Your task to perform on an android device: Show the shopping cart on costco. Add logitech g933 to the cart on costco, then select checkout. Image 0: 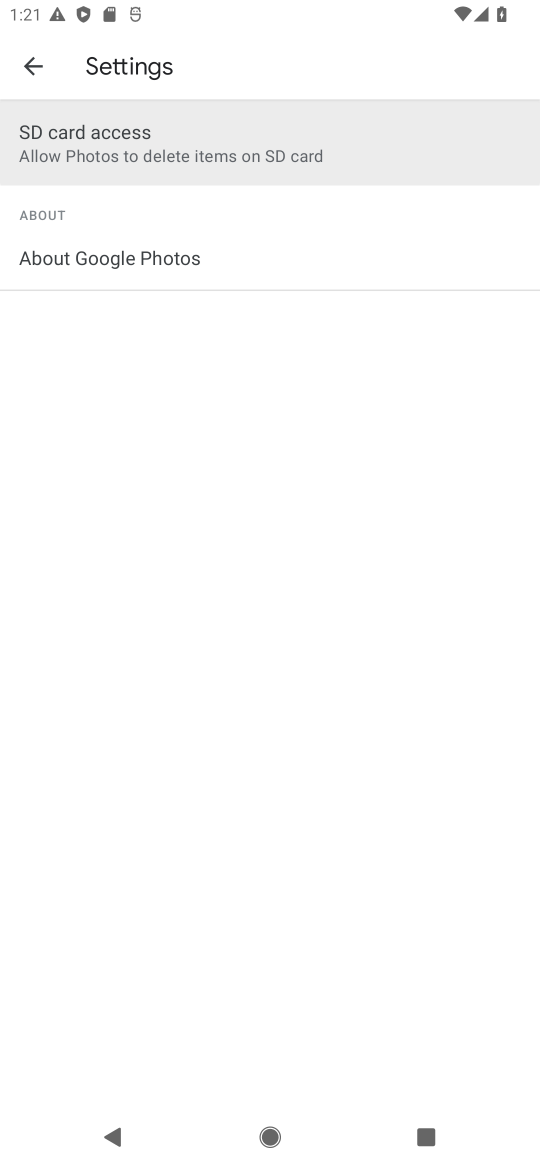
Step 0: press home button
Your task to perform on an android device: Show the shopping cart on costco. Add logitech g933 to the cart on costco, then select checkout. Image 1: 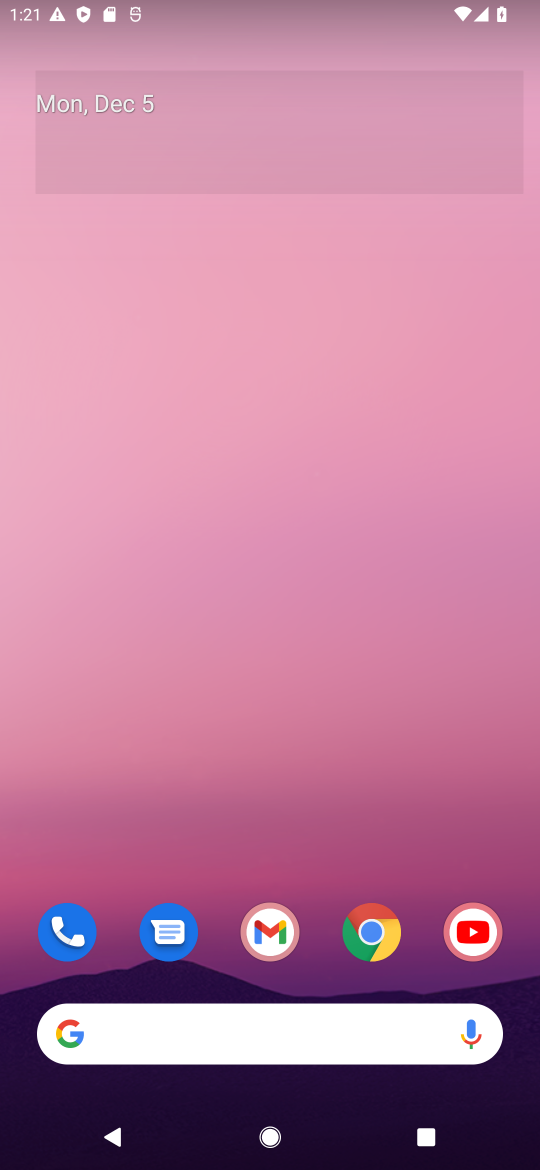
Step 1: click (369, 936)
Your task to perform on an android device: Show the shopping cart on costco. Add logitech g933 to the cart on costco, then select checkout. Image 2: 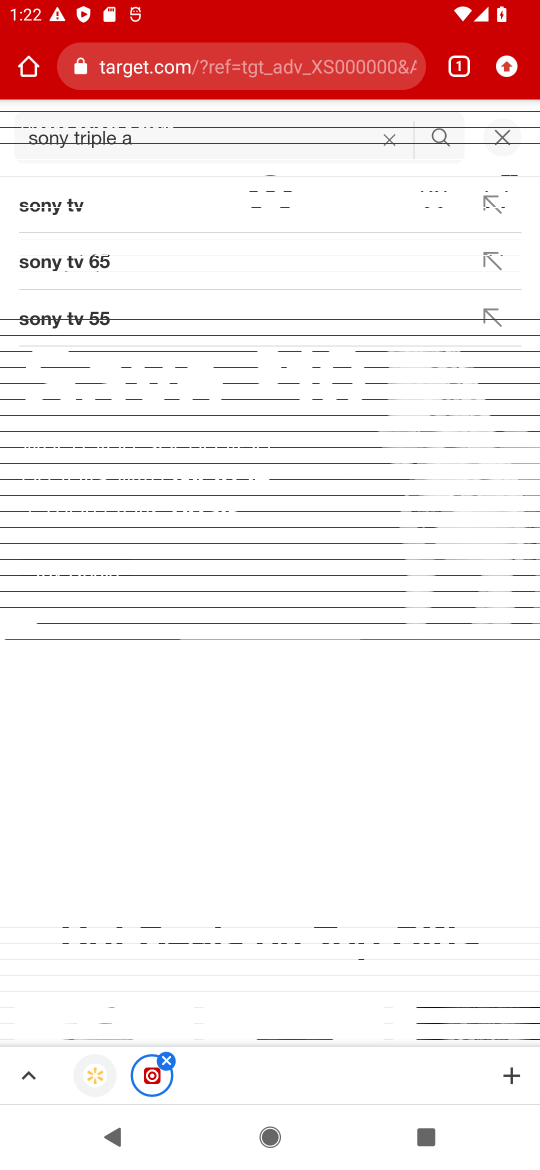
Step 2: click (273, 58)
Your task to perform on an android device: Show the shopping cart on costco. Add logitech g933 to the cart on costco, then select checkout. Image 3: 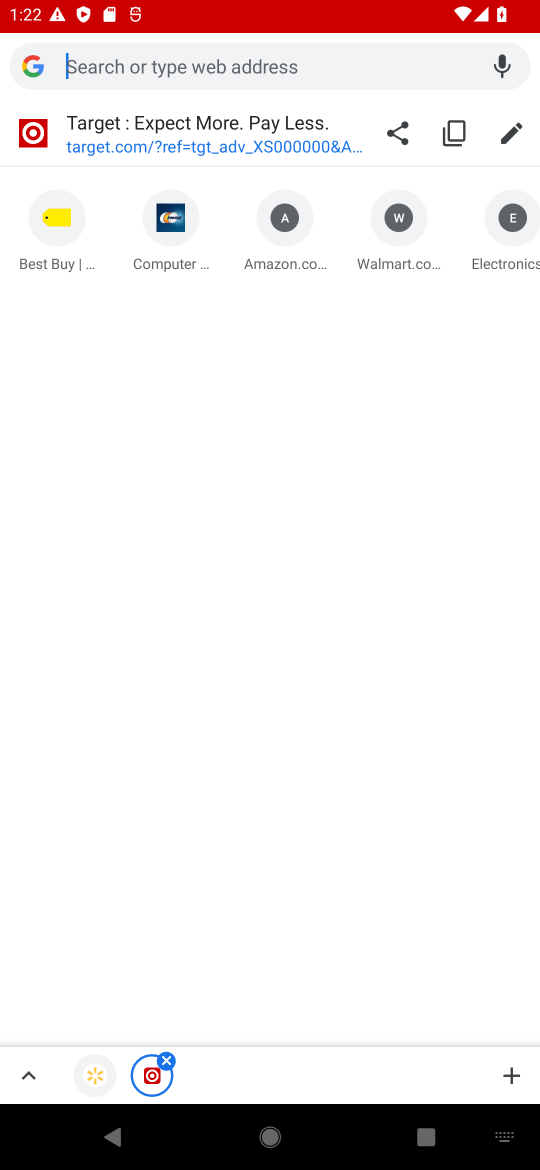
Step 3: type "costco"
Your task to perform on an android device: Show the shopping cart on costco. Add logitech g933 to the cart on costco, then select checkout. Image 4: 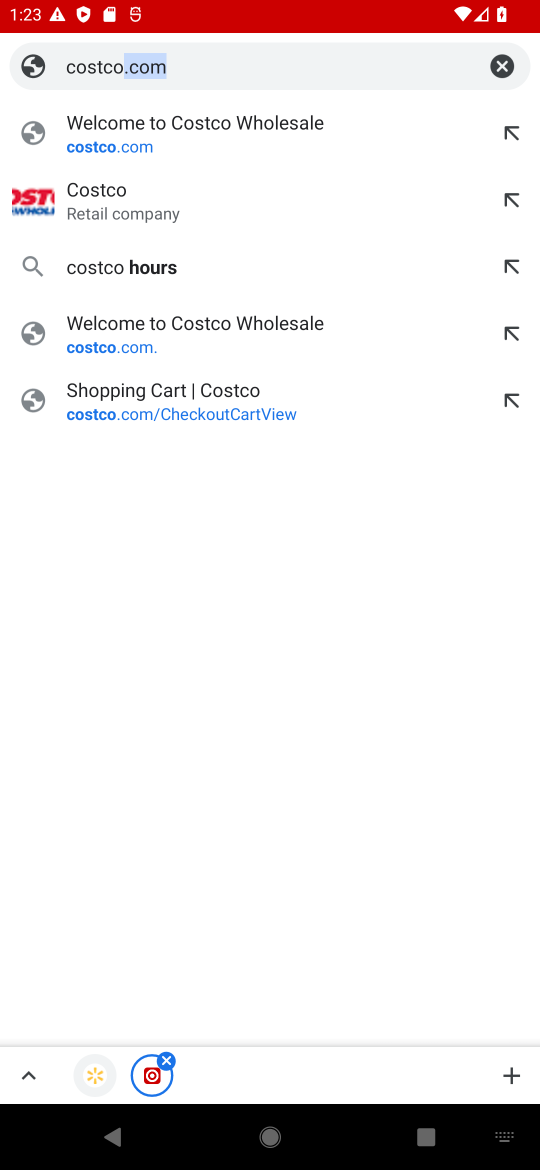
Step 4: click (187, 131)
Your task to perform on an android device: Show the shopping cart on costco. Add logitech g933 to the cart on costco, then select checkout. Image 5: 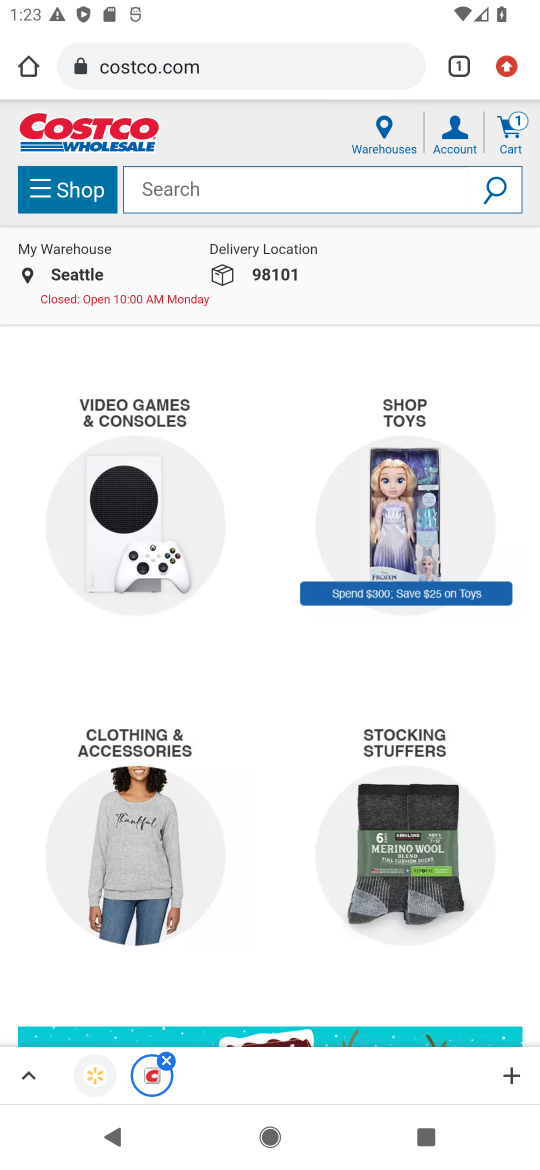
Step 5: type "logitech g933"
Your task to perform on an android device: Show the shopping cart on costco. Add logitech g933 to the cart on costco, then select checkout. Image 6: 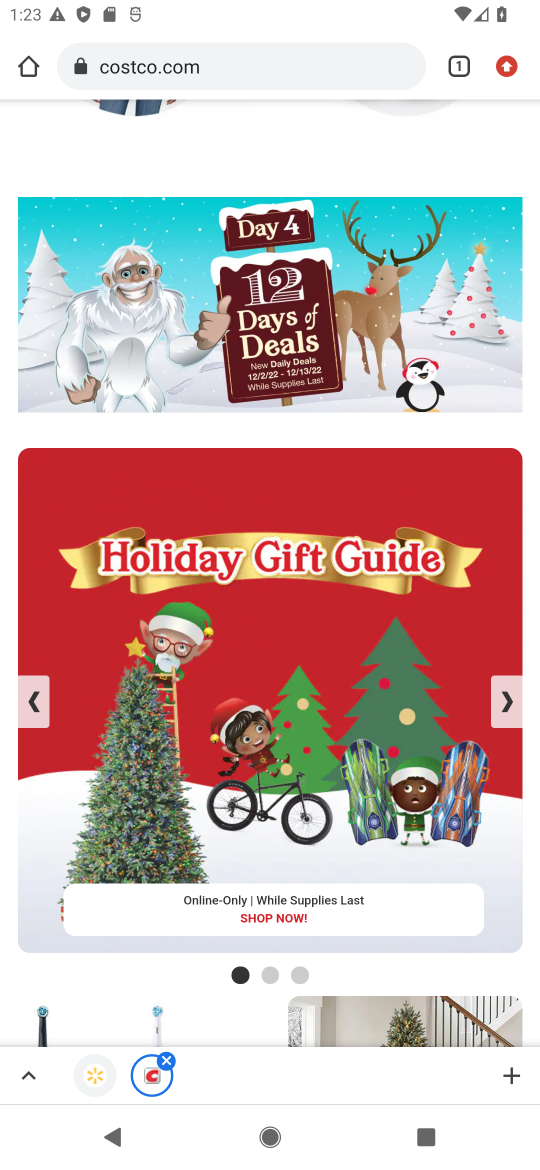
Step 6: drag from (369, 173) to (332, 690)
Your task to perform on an android device: Show the shopping cart on costco. Add logitech g933 to the cart on costco, then select checkout. Image 7: 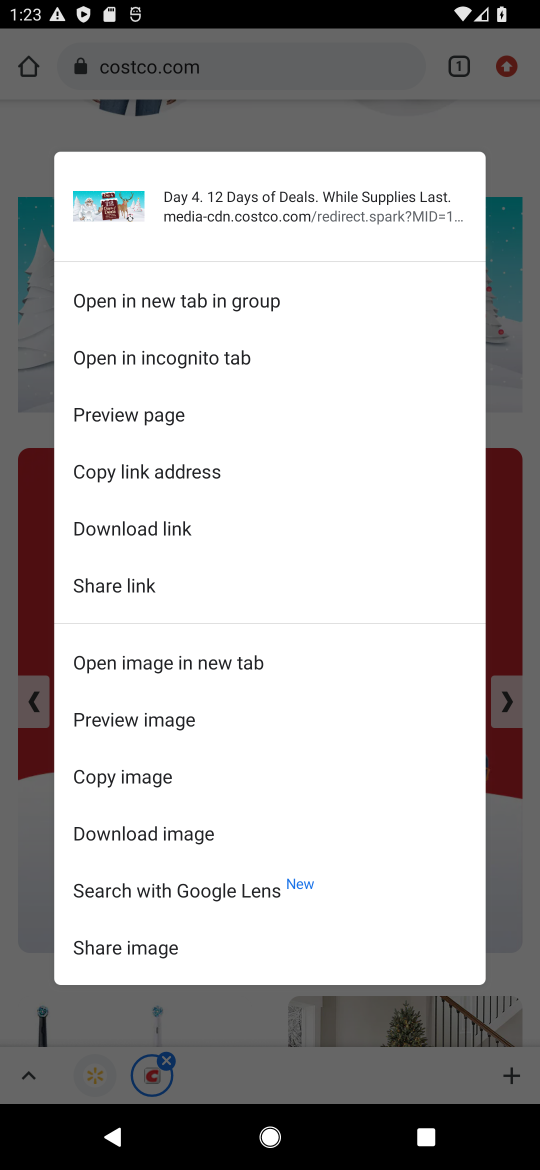
Step 7: click (510, 299)
Your task to perform on an android device: Show the shopping cart on costco. Add logitech g933 to the cart on costco, then select checkout. Image 8: 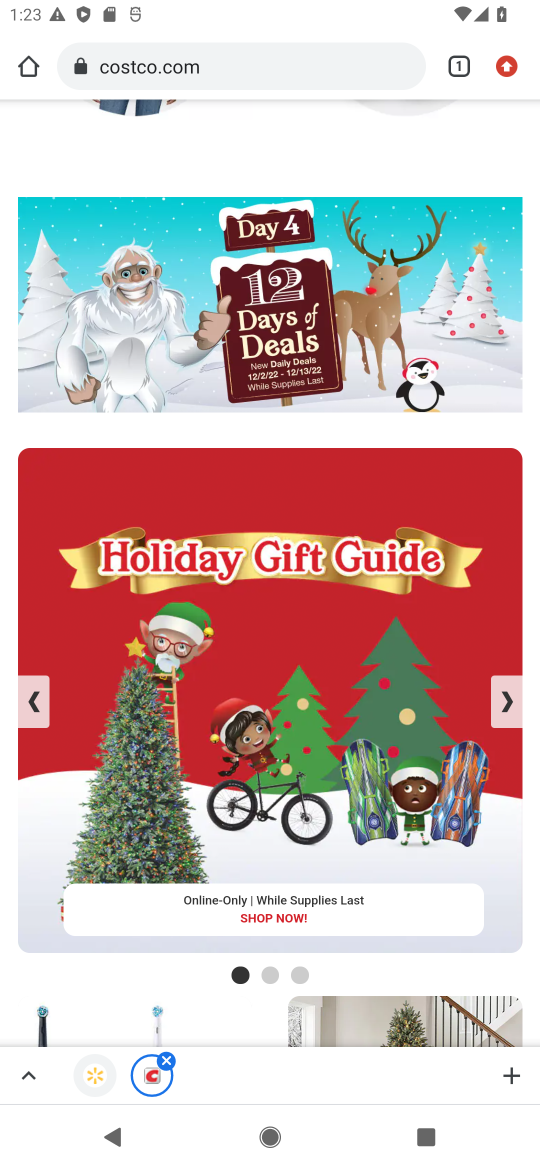
Step 8: drag from (460, 154) to (456, 603)
Your task to perform on an android device: Show the shopping cart on costco. Add logitech g933 to the cart on costco, then select checkout. Image 9: 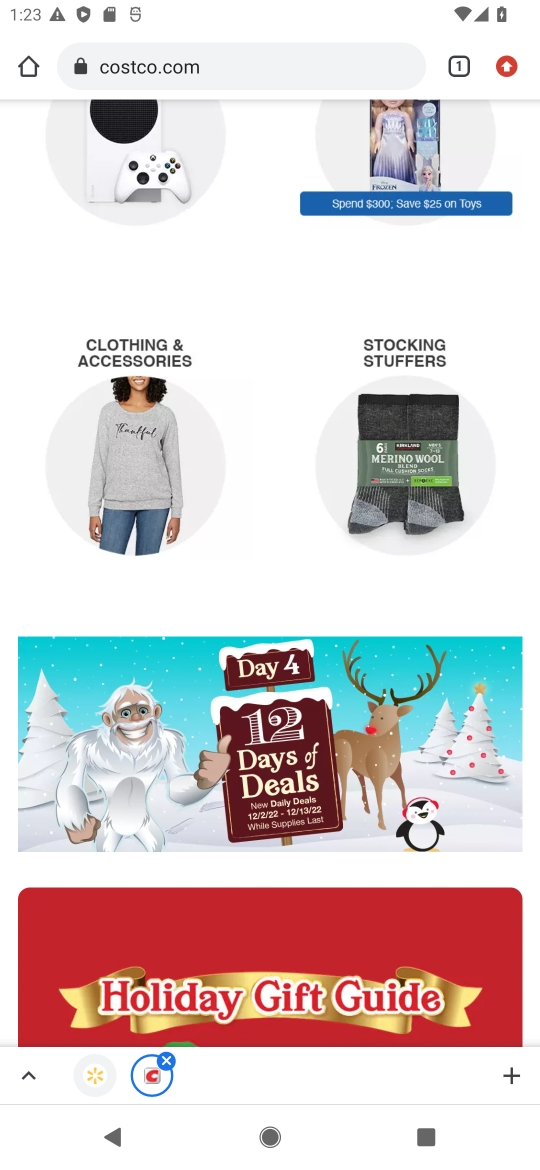
Step 9: drag from (434, 201) to (350, 800)
Your task to perform on an android device: Show the shopping cart on costco. Add logitech g933 to the cart on costco, then select checkout. Image 10: 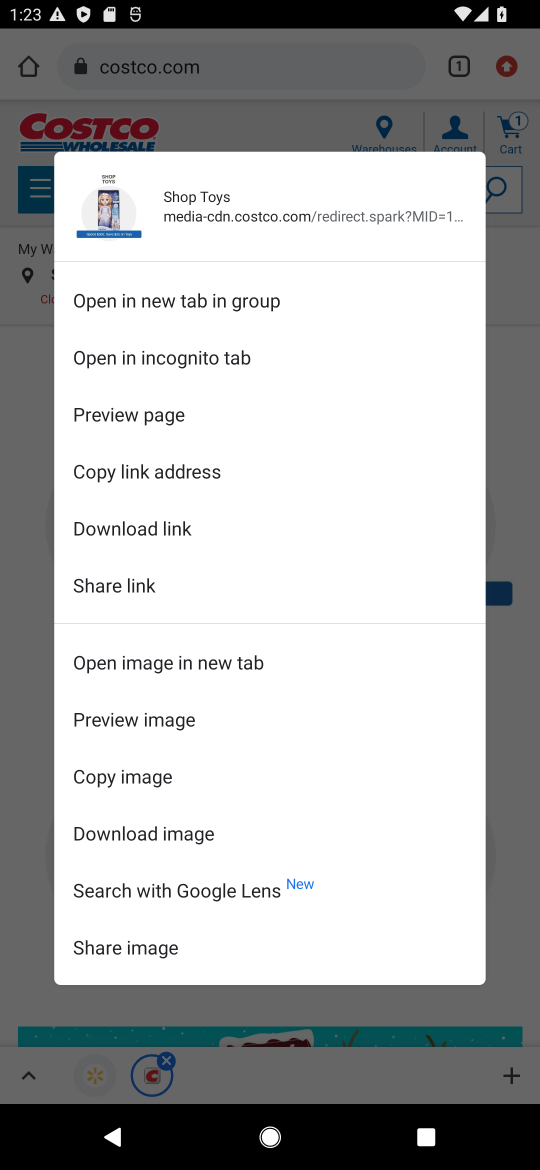
Step 10: click (509, 272)
Your task to perform on an android device: Show the shopping cart on costco. Add logitech g933 to the cart on costco, then select checkout. Image 11: 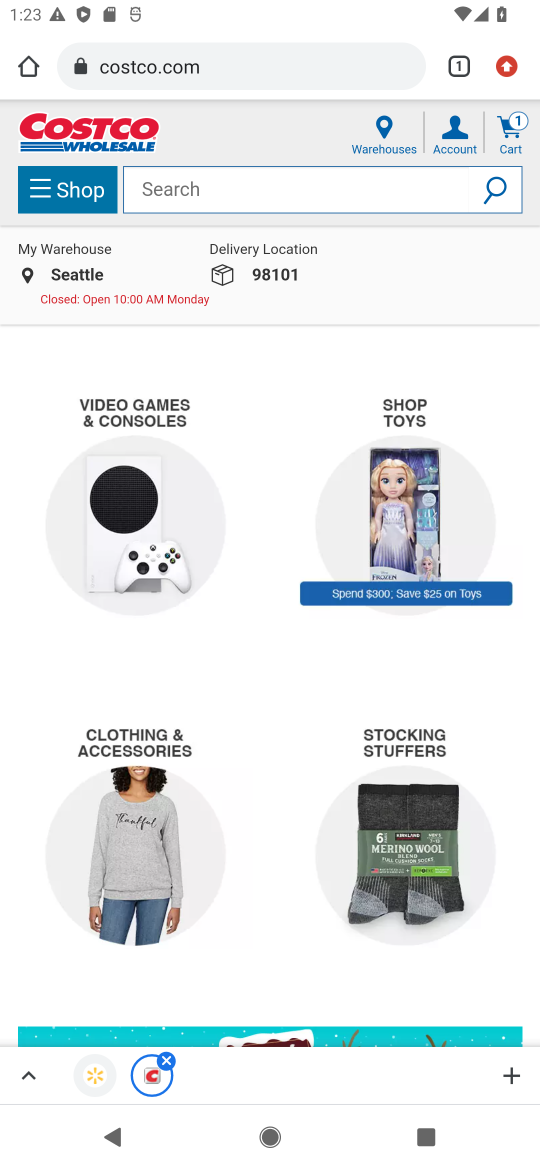
Step 11: click (306, 176)
Your task to perform on an android device: Show the shopping cart on costco. Add logitech g933 to the cart on costco, then select checkout. Image 12: 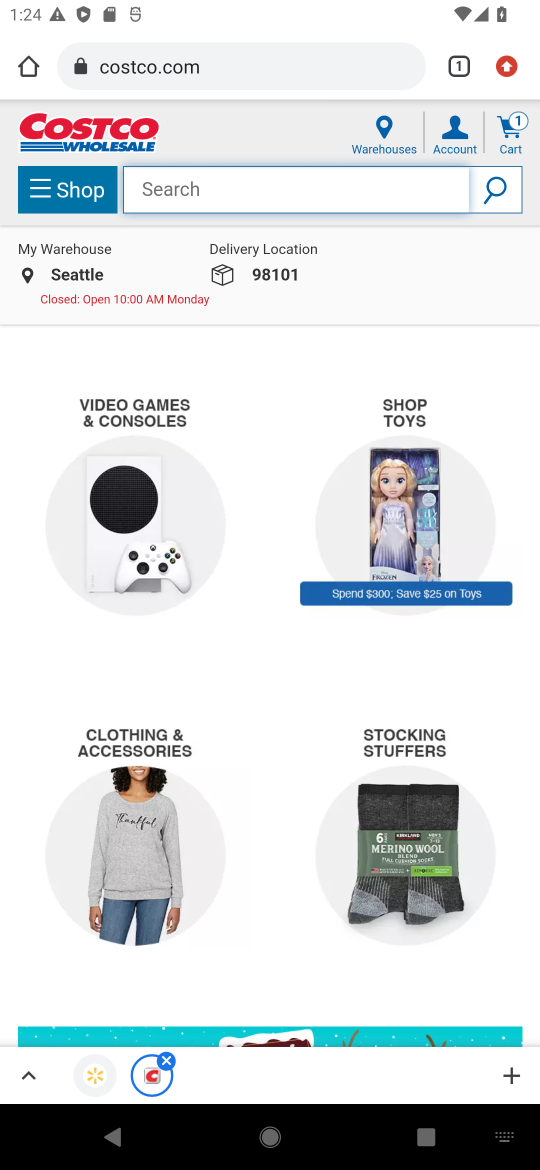
Step 12: type "logitech g933"
Your task to perform on an android device: Show the shopping cart on costco. Add logitech g933 to the cart on costco, then select checkout. Image 13: 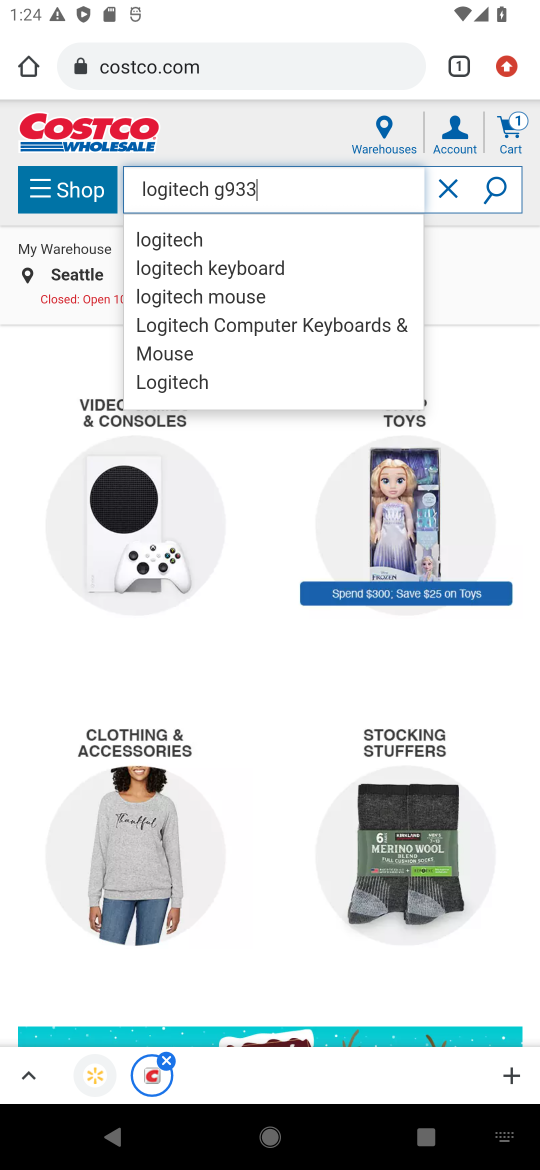
Step 13: click (194, 234)
Your task to perform on an android device: Show the shopping cart on costco. Add logitech g933 to the cart on costco, then select checkout. Image 14: 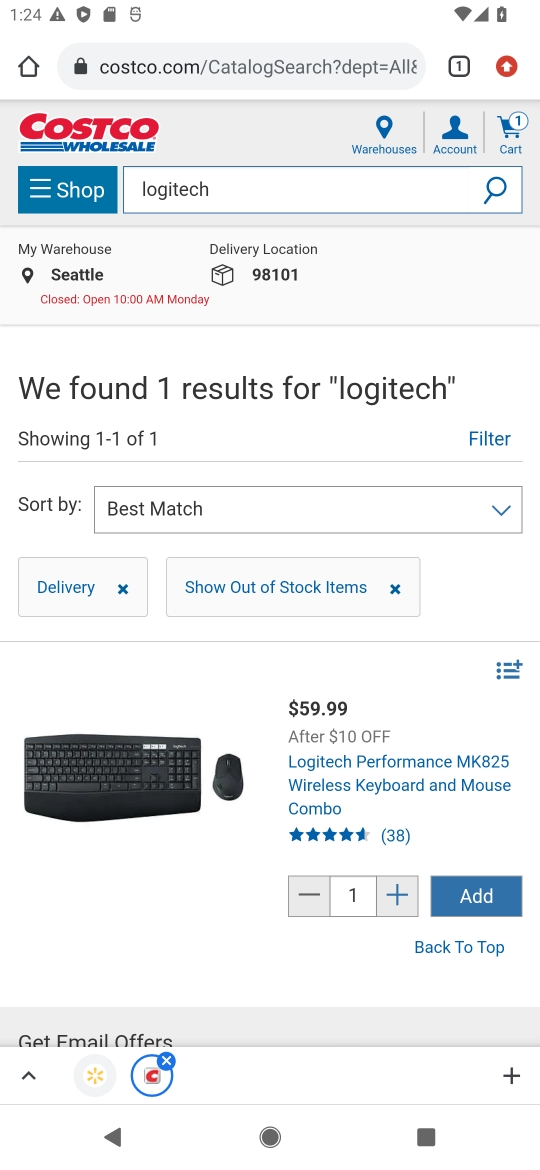
Step 14: click (481, 896)
Your task to perform on an android device: Show the shopping cart on costco. Add logitech g933 to the cart on costco, then select checkout. Image 15: 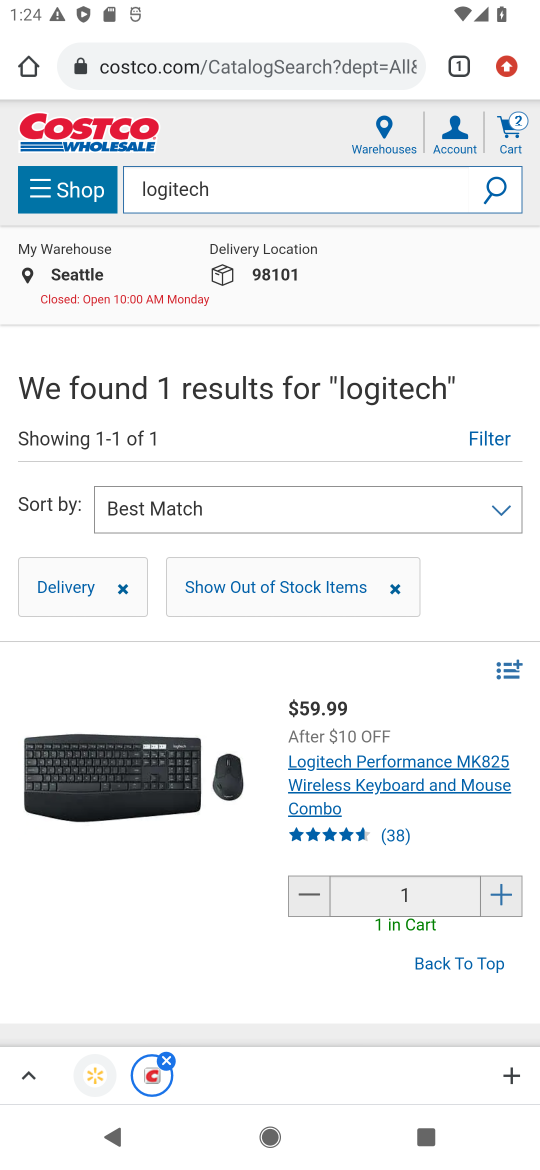
Step 15: task complete